Your task to perform on an android device: open wifi settings Image 0: 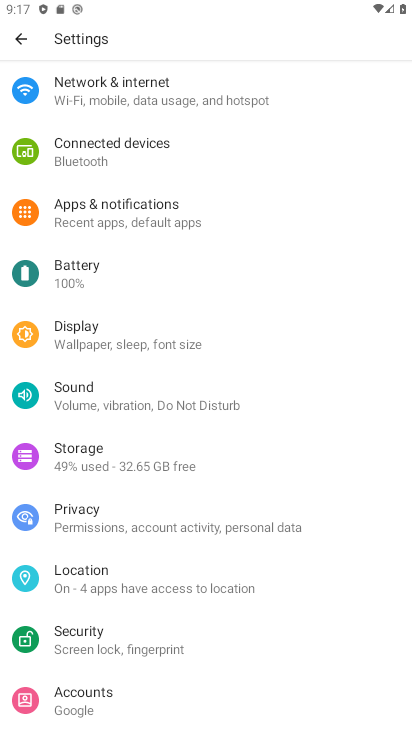
Step 0: click (137, 91)
Your task to perform on an android device: open wifi settings Image 1: 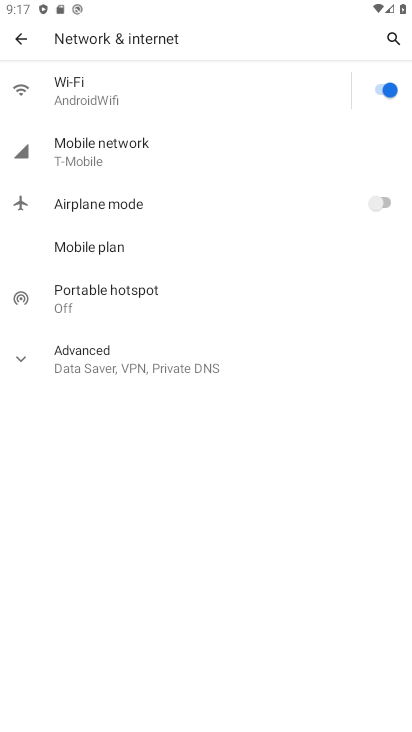
Step 1: click (167, 96)
Your task to perform on an android device: open wifi settings Image 2: 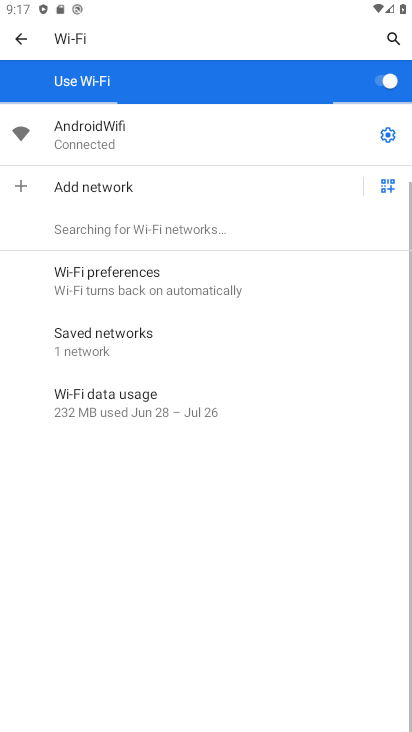
Step 2: task complete